Your task to perform on an android device: stop showing notifications on the lock screen Image 0: 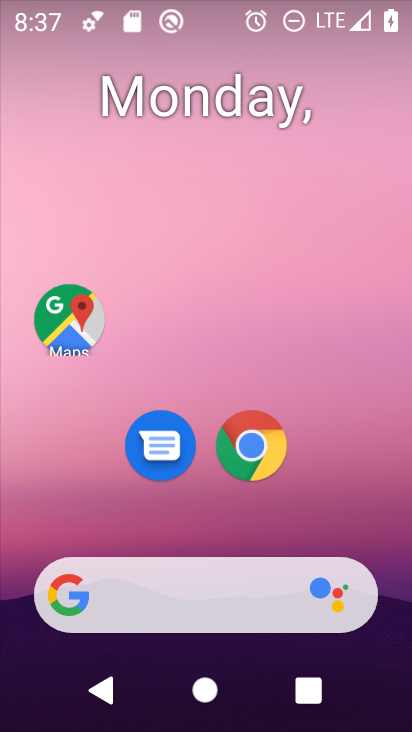
Step 0: drag from (348, 482) to (268, 147)
Your task to perform on an android device: stop showing notifications on the lock screen Image 1: 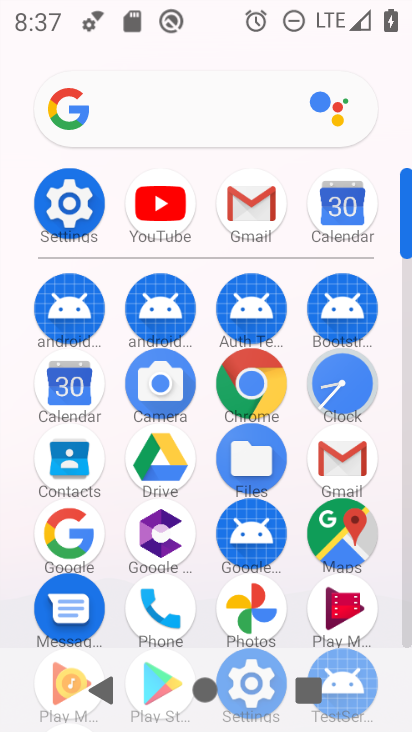
Step 1: click (83, 197)
Your task to perform on an android device: stop showing notifications on the lock screen Image 2: 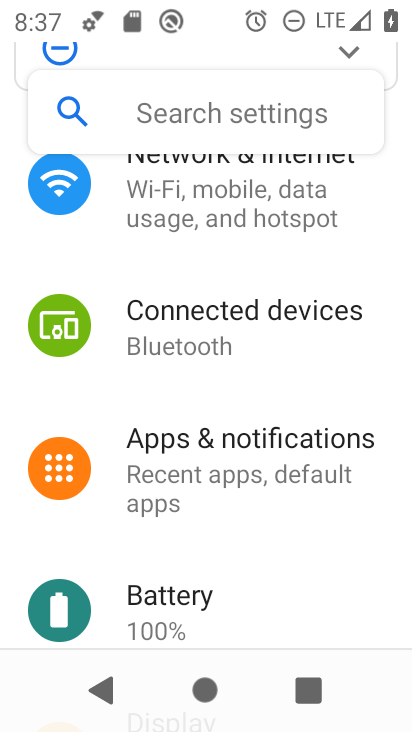
Step 2: click (230, 427)
Your task to perform on an android device: stop showing notifications on the lock screen Image 3: 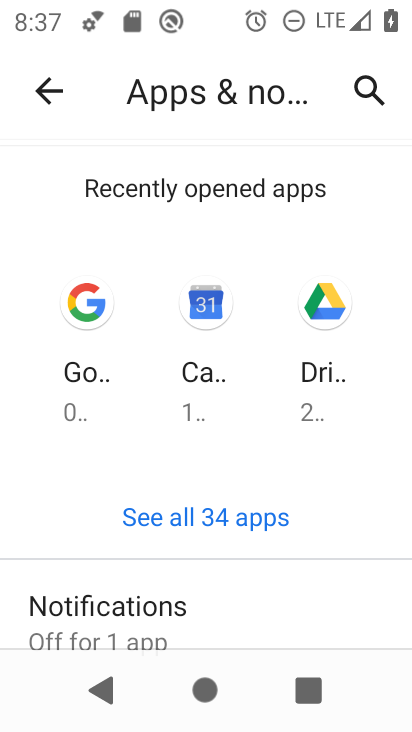
Step 3: drag from (278, 576) to (260, 329)
Your task to perform on an android device: stop showing notifications on the lock screen Image 4: 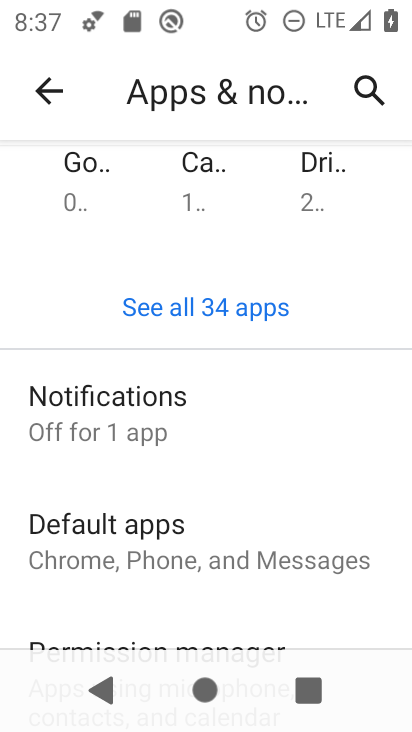
Step 4: drag from (194, 453) to (175, 195)
Your task to perform on an android device: stop showing notifications on the lock screen Image 5: 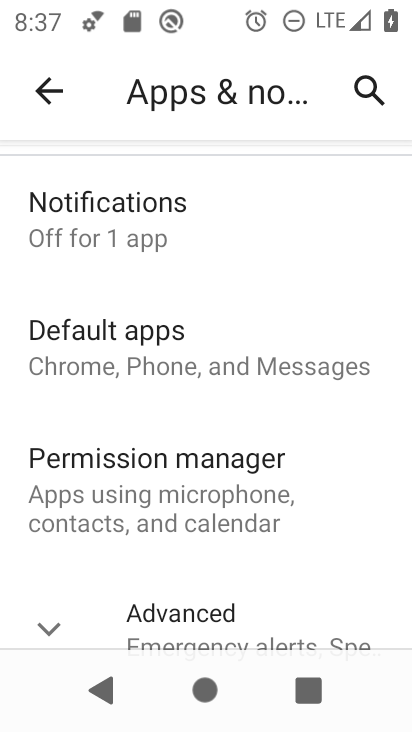
Step 5: drag from (283, 538) to (260, 257)
Your task to perform on an android device: stop showing notifications on the lock screen Image 6: 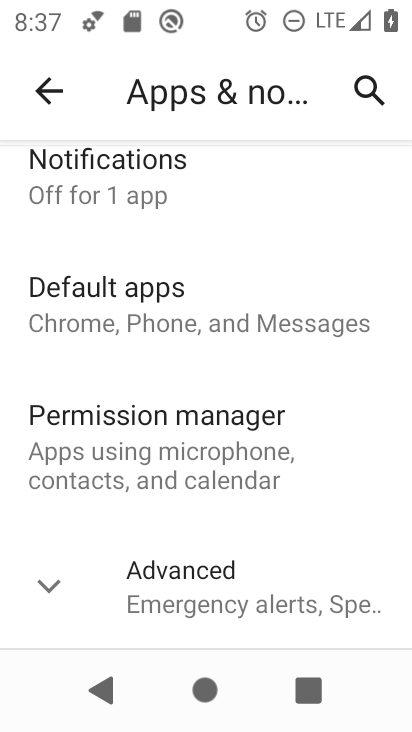
Step 6: drag from (218, 238) to (221, 481)
Your task to perform on an android device: stop showing notifications on the lock screen Image 7: 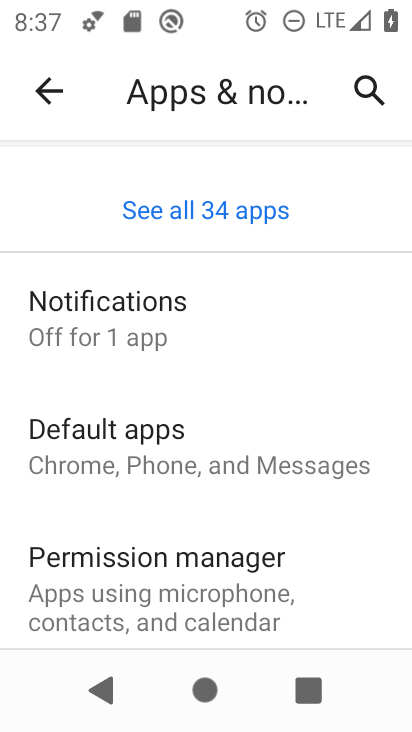
Step 7: click (118, 293)
Your task to perform on an android device: stop showing notifications on the lock screen Image 8: 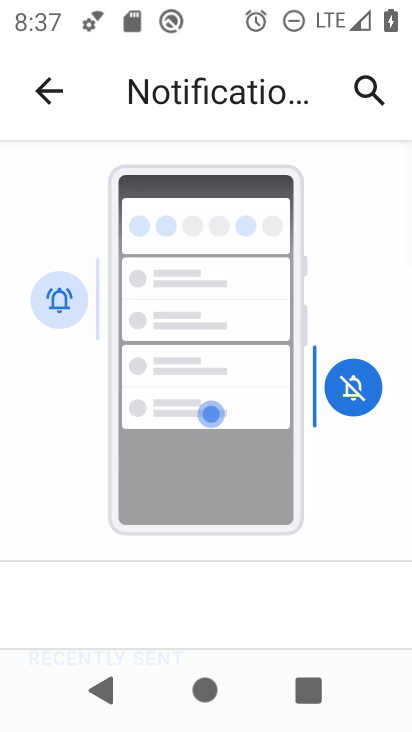
Step 8: drag from (280, 560) to (238, 203)
Your task to perform on an android device: stop showing notifications on the lock screen Image 9: 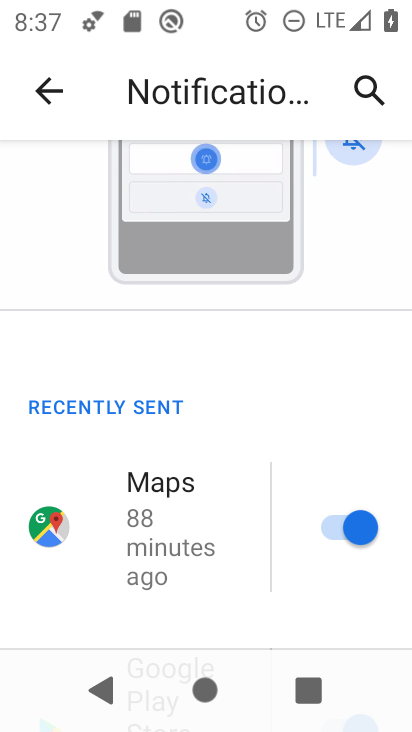
Step 9: drag from (229, 513) to (195, 204)
Your task to perform on an android device: stop showing notifications on the lock screen Image 10: 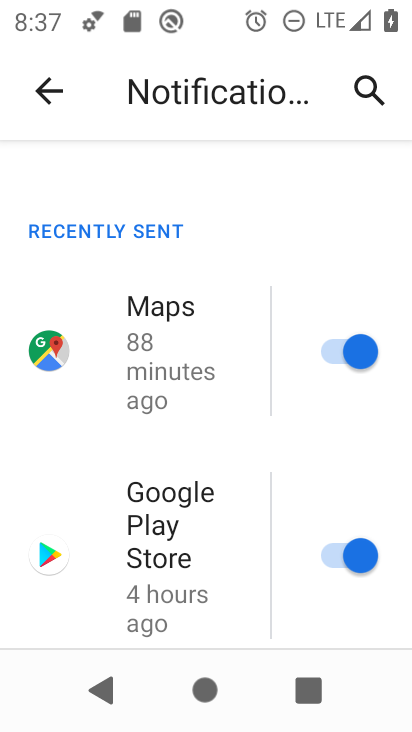
Step 10: drag from (236, 516) to (198, 172)
Your task to perform on an android device: stop showing notifications on the lock screen Image 11: 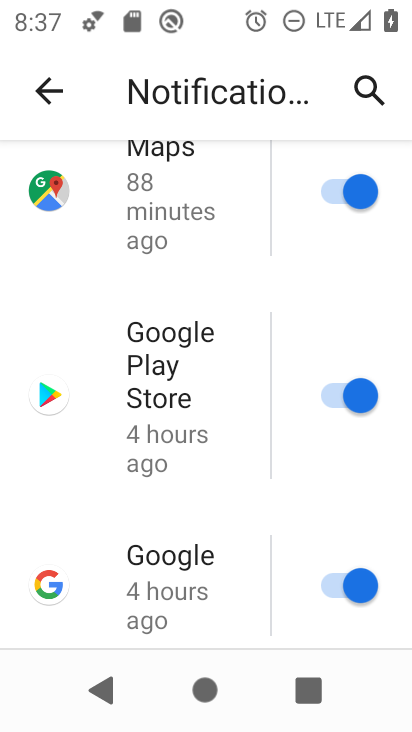
Step 11: drag from (246, 555) to (236, 320)
Your task to perform on an android device: stop showing notifications on the lock screen Image 12: 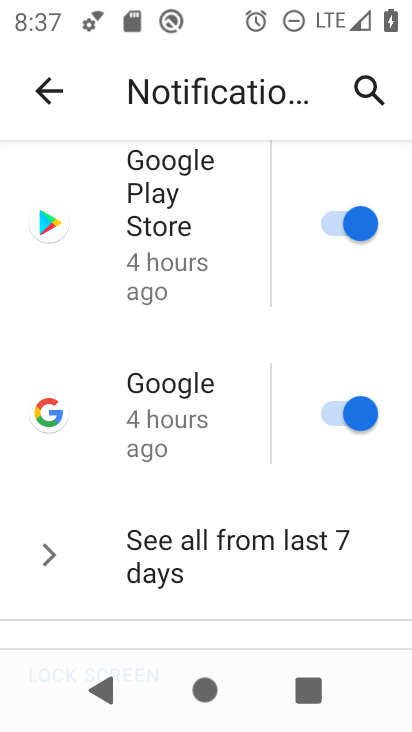
Step 12: drag from (230, 555) to (176, 170)
Your task to perform on an android device: stop showing notifications on the lock screen Image 13: 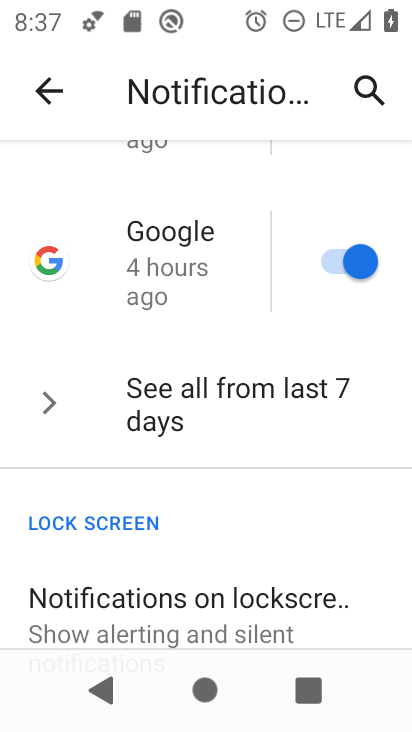
Step 13: click (191, 612)
Your task to perform on an android device: stop showing notifications on the lock screen Image 14: 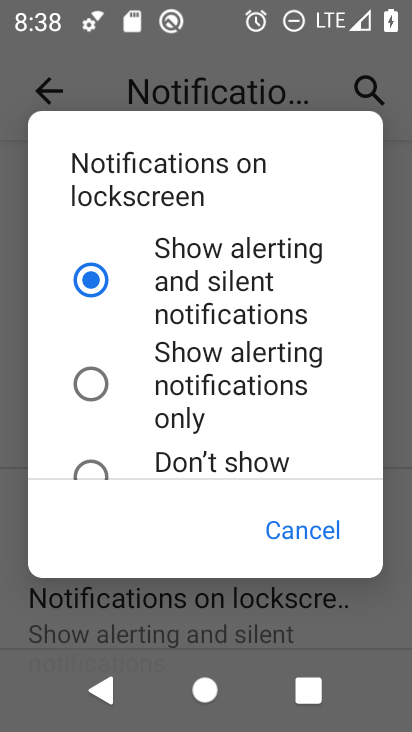
Step 14: click (94, 466)
Your task to perform on an android device: stop showing notifications on the lock screen Image 15: 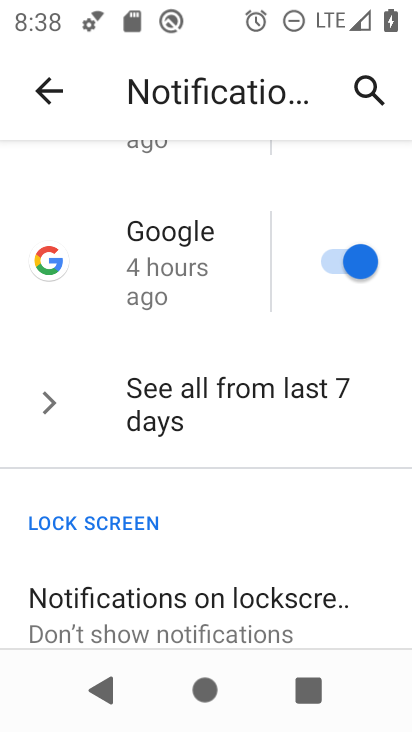
Step 15: task complete